Your task to perform on an android device: Go to Android settings Image 0: 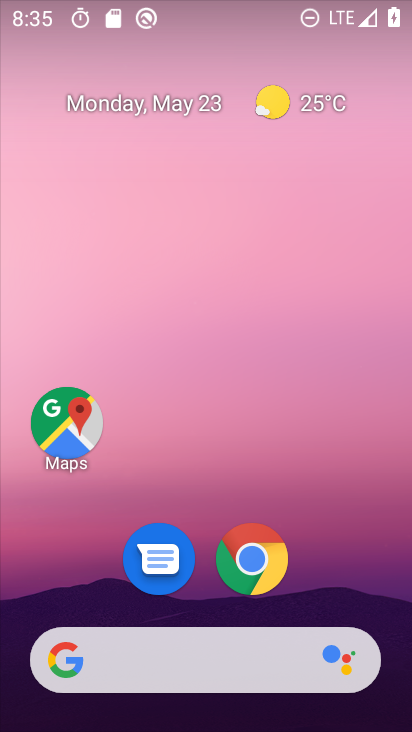
Step 0: drag from (397, 642) to (302, 2)
Your task to perform on an android device: Go to Android settings Image 1: 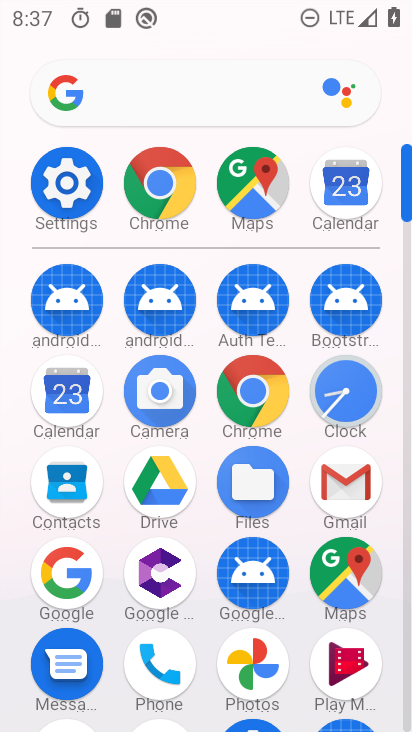
Step 1: click (44, 170)
Your task to perform on an android device: Go to Android settings Image 2: 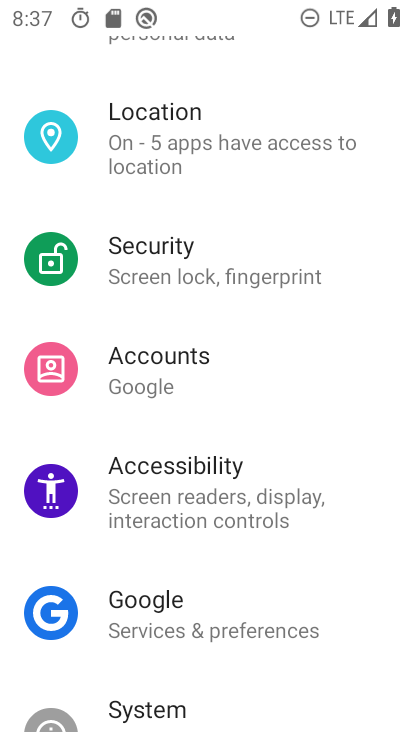
Step 2: drag from (142, 652) to (251, 2)
Your task to perform on an android device: Go to Android settings Image 3: 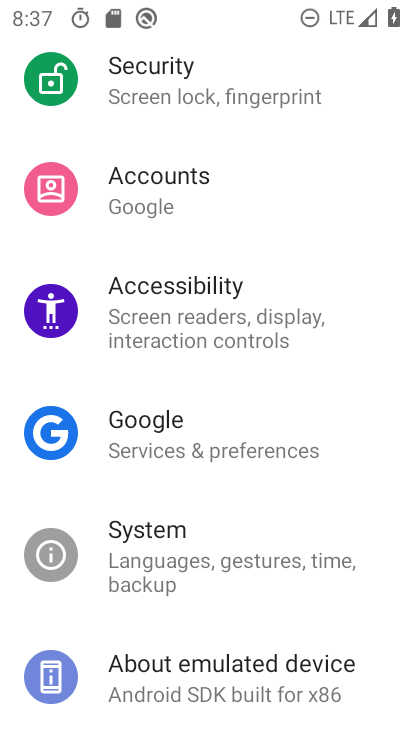
Step 3: click (185, 656)
Your task to perform on an android device: Go to Android settings Image 4: 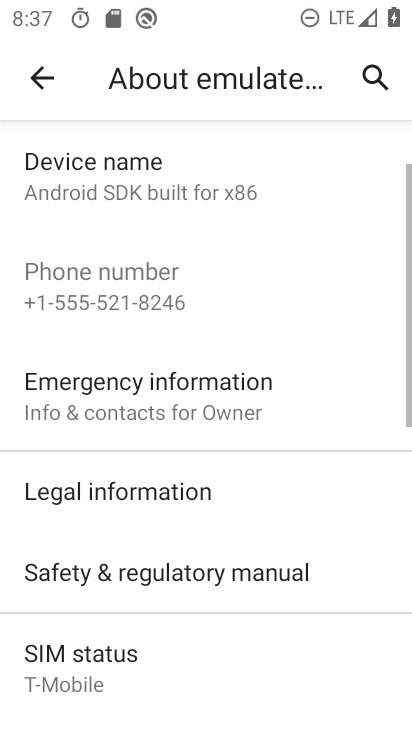
Step 4: task complete